Your task to perform on an android device: Go to Yahoo.com Image 0: 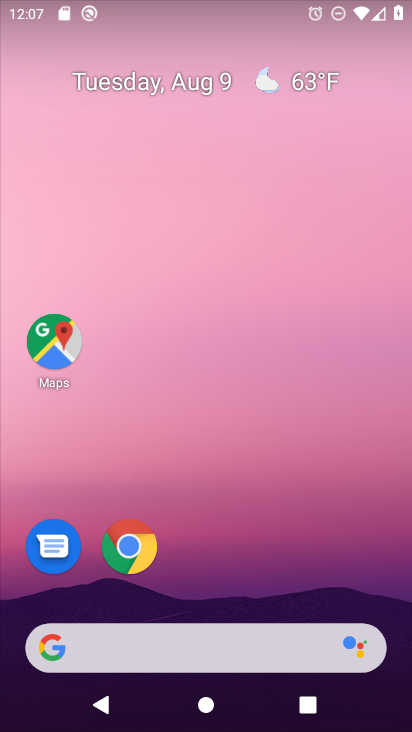
Step 0: press home button
Your task to perform on an android device: Go to Yahoo.com Image 1: 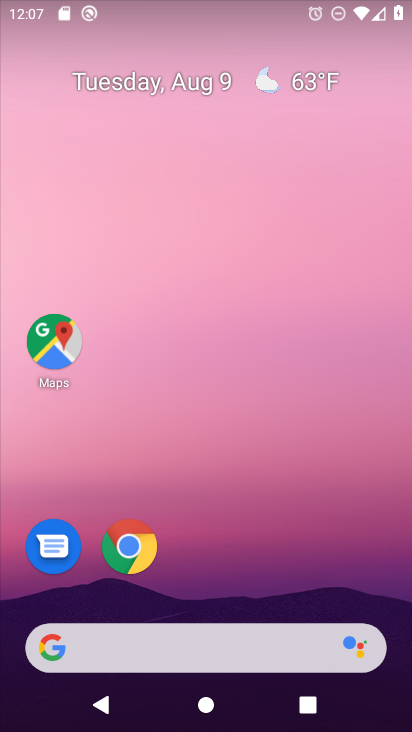
Step 1: drag from (216, 604) to (219, 32)
Your task to perform on an android device: Go to Yahoo.com Image 2: 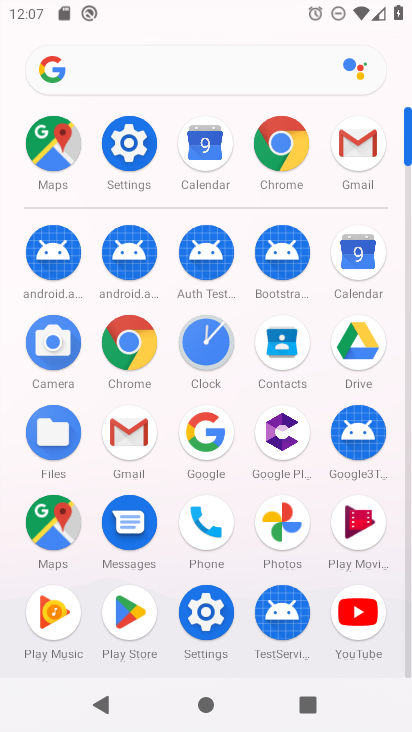
Step 2: click (278, 136)
Your task to perform on an android device: Go to Yahoo.com Image 3: 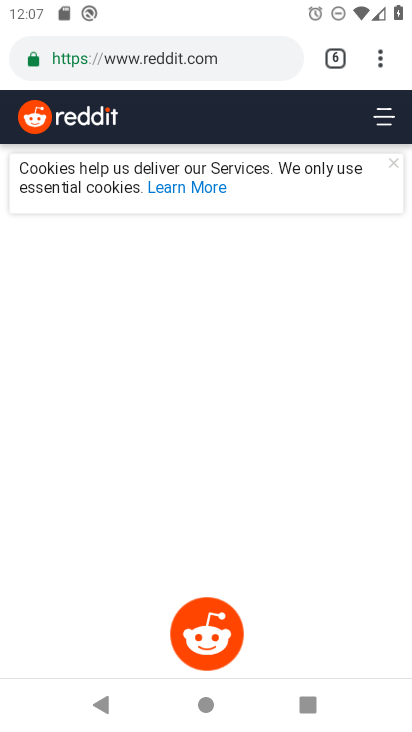
Step 3: click (333, 63)
Your task to perform on an android device: Go to Yahoo.com Image 4: 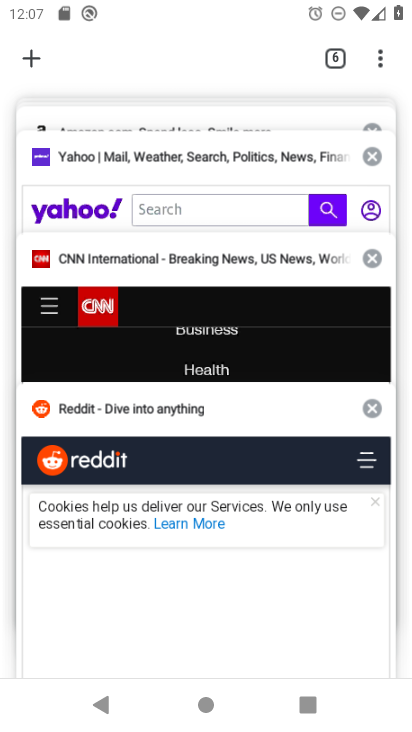
Step 4: click (116, 207)
Your task to perform on an android device: Go to Yahoo.com Image 5: 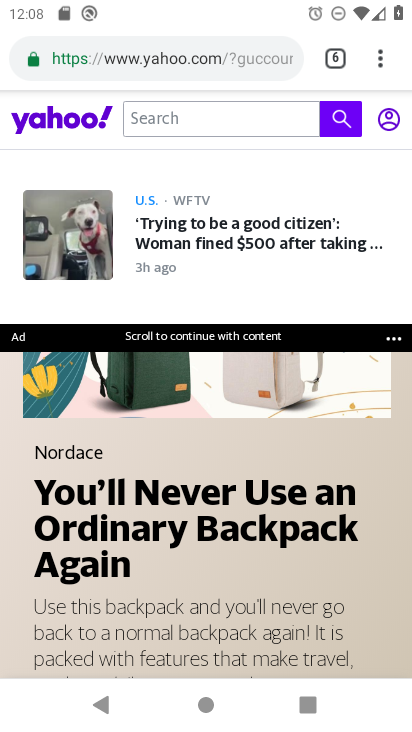
Step 5: task complete